Your task to perform on an android device: Set the phone to "Do not disturb". Image 0: 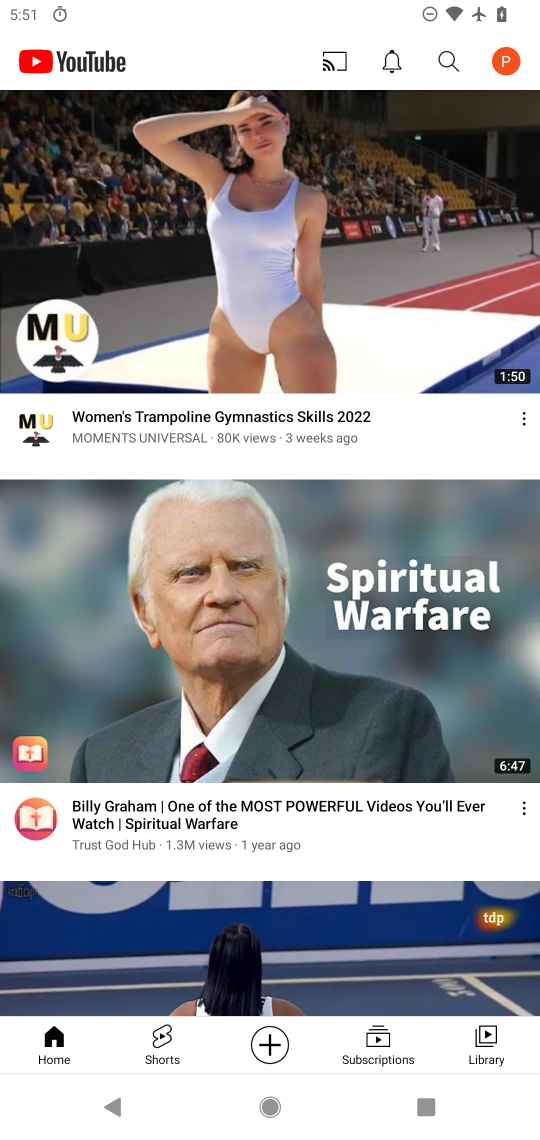
Step 0: press home button
Your task to perform on an android device: Set the phone to "Do not disturb". Image 1: 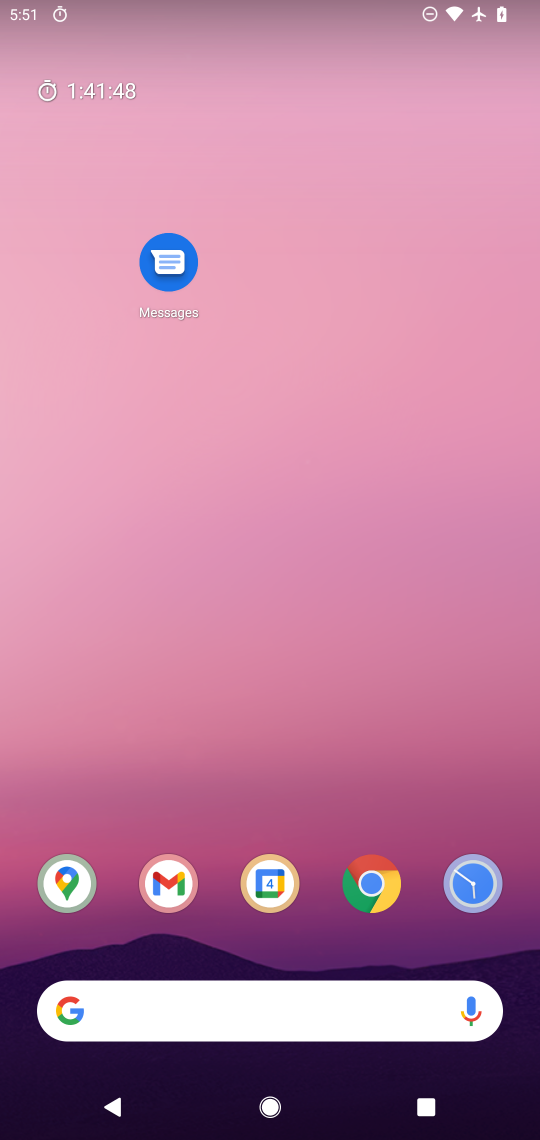
Step 1: drag from (319, 944) to (319, 86)
Your task to perform on an android device: Set the phone to "Do not disturb". Image 2: 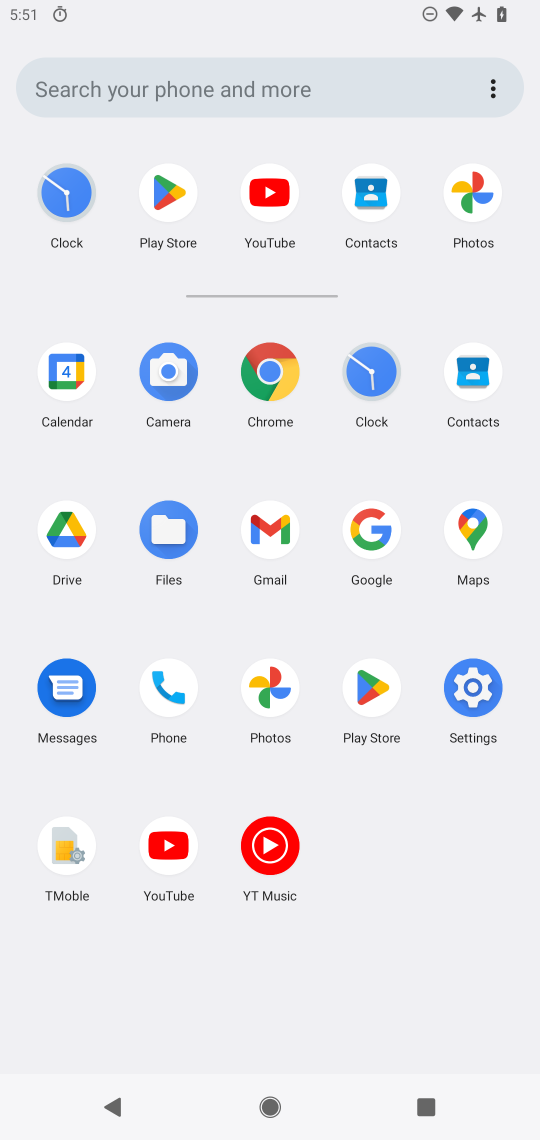
Step 2: click (468, 670)
Your task to perform on an android device: Set the phone to "Do not disturb". Image 3: 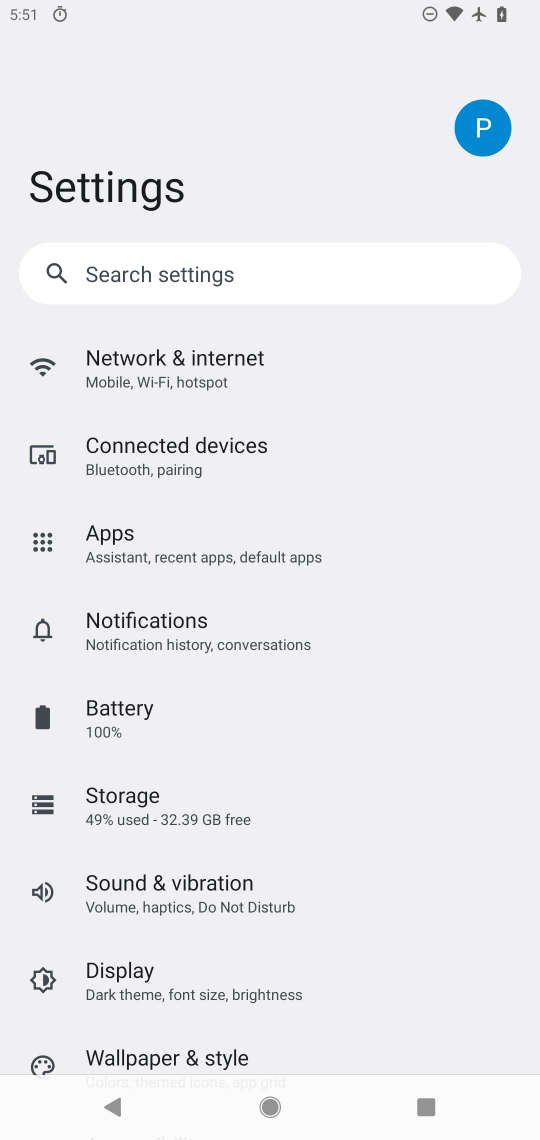
Step 3: drag from (187, 1030) to (187, 816)
Your task to perform on an android device: Set the phone to "Do not disturb". Image 4: 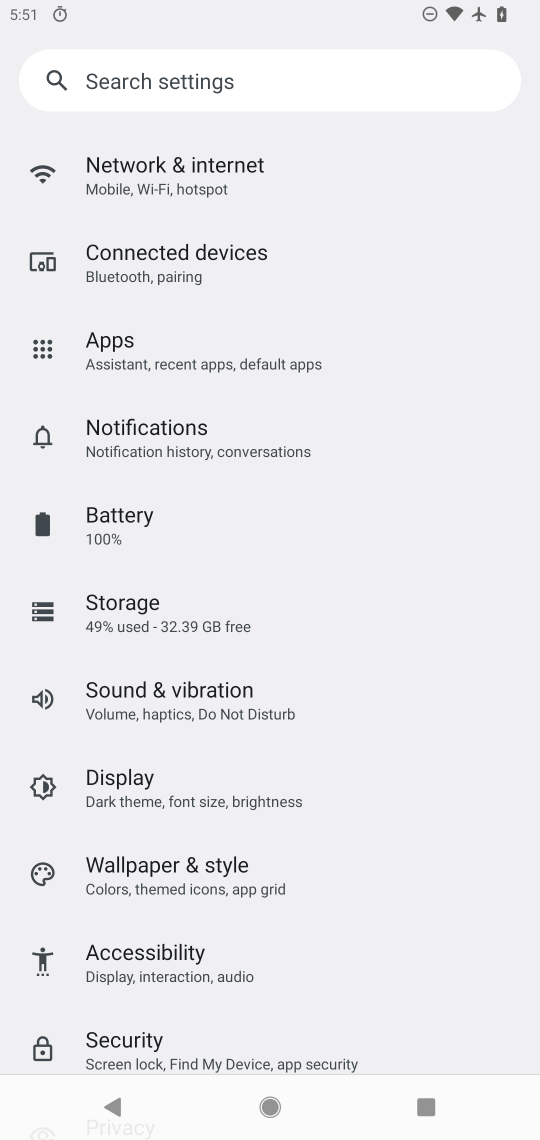
Step 4: click (179, 701)
Your task to perform on an android device: Set the phone to "Do not disturb". Image 5: 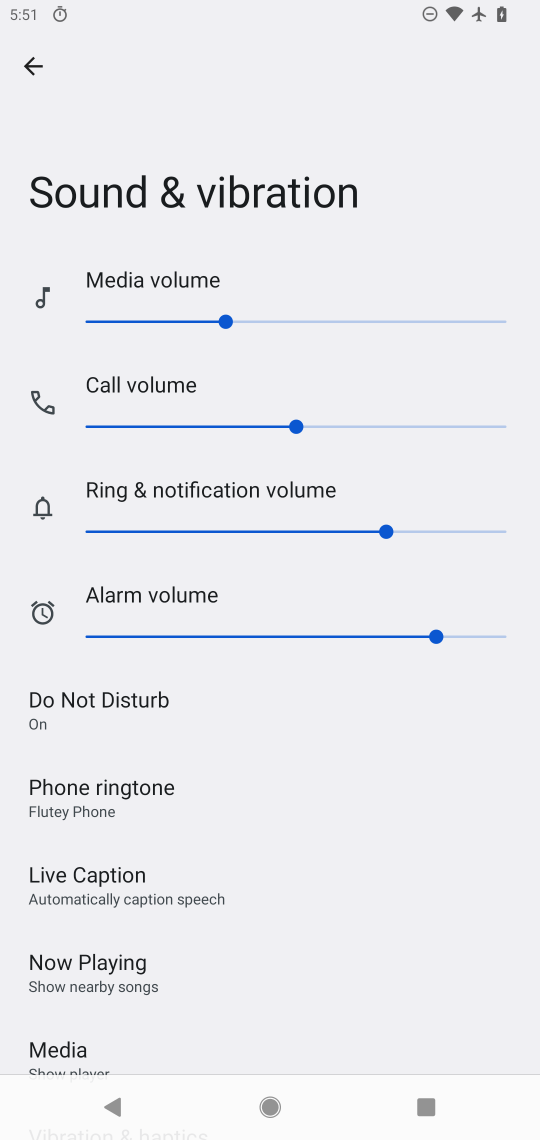
Step 5: click (99, 703)
Your task to perform on an android device: Set the phone to "Do not disturb". Image 6: 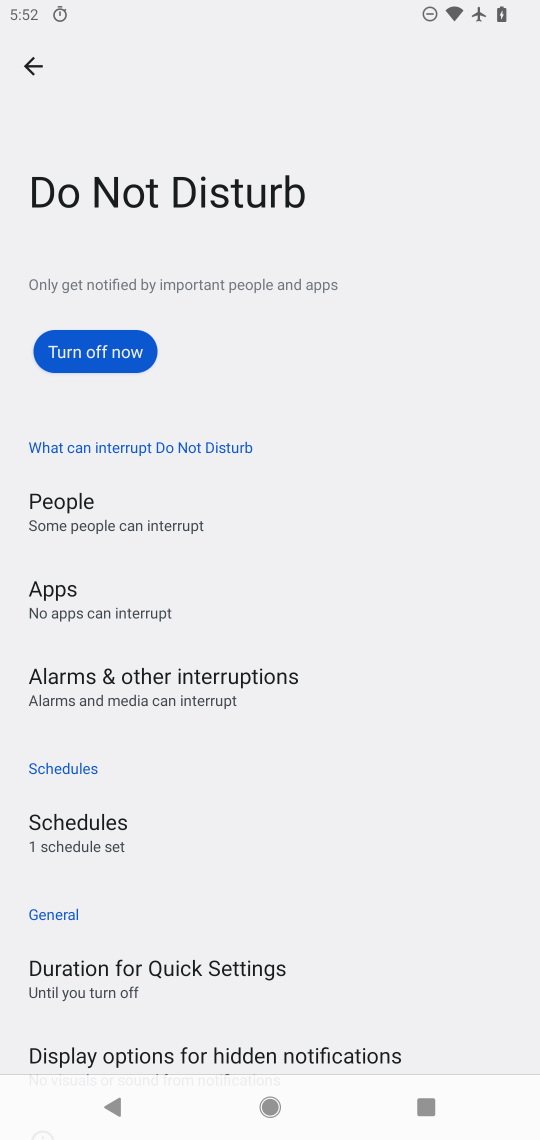
Step 6: task complete